Your task to perform on an android device: see sites visited before in the chrome app Image 0: 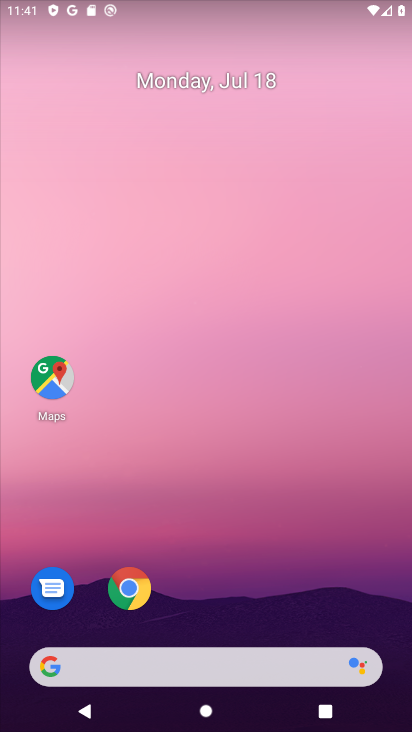
Step 0: click (126, 594)
Your task to perform on an android device: see sites visited before in the chrome app Image 1: 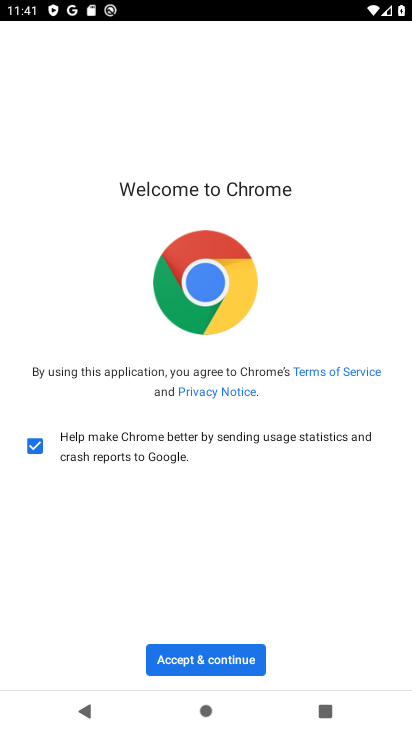
Step 1: click (184, 663)
Your task to perform on an android device: see sites visited before in the chrome app Image 2: 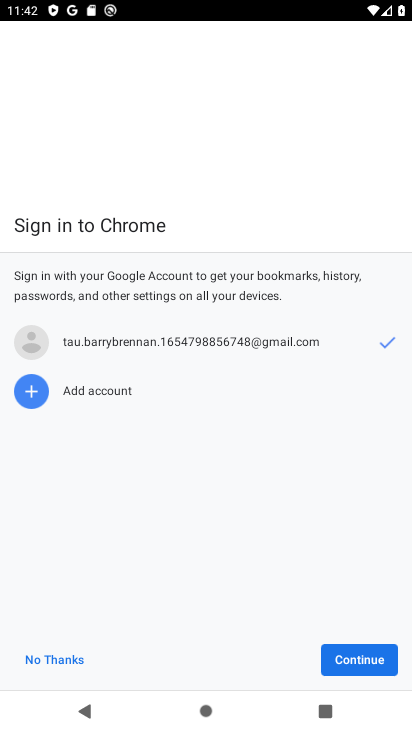
Step 2: click (376, 647)
Your task to perform on an android device: see sites visited before in the chrome app Image 3: 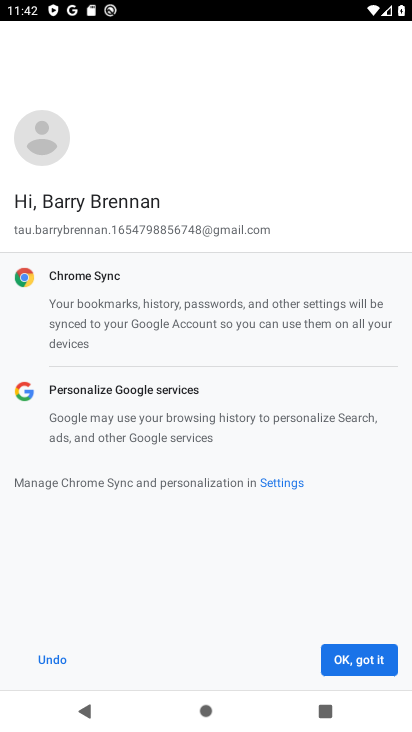
Step 3: click (376, 647)
Your task to perform on an android device: see sites visited before in the chrome app Image 4: 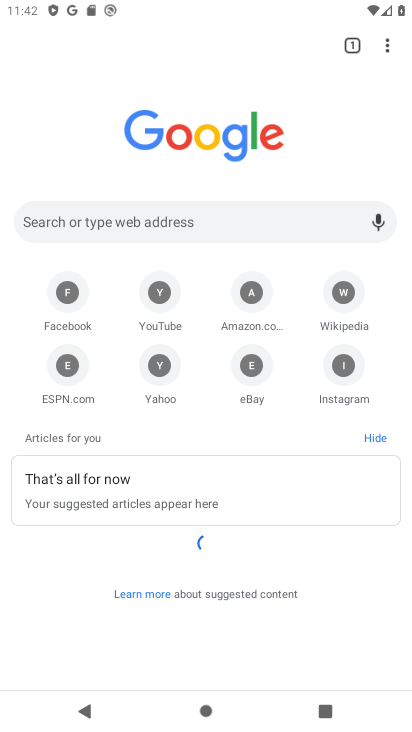
Step 4: click (396, 46)
Your task to perform on an android device: see sites visited before in the chrome app Image 5: 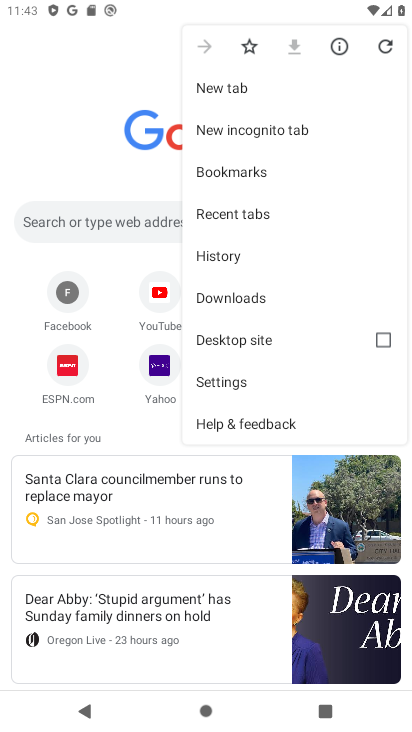
Step 5: click (258, 216)
Your task to perform on an android device: see sites visited before in the chrome app Image 6: 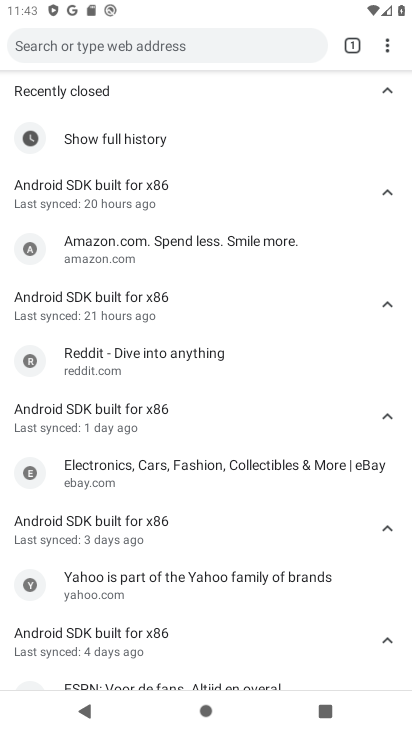
Step 6: task complete